Your task to perform on an android device: turn off location Image 0: 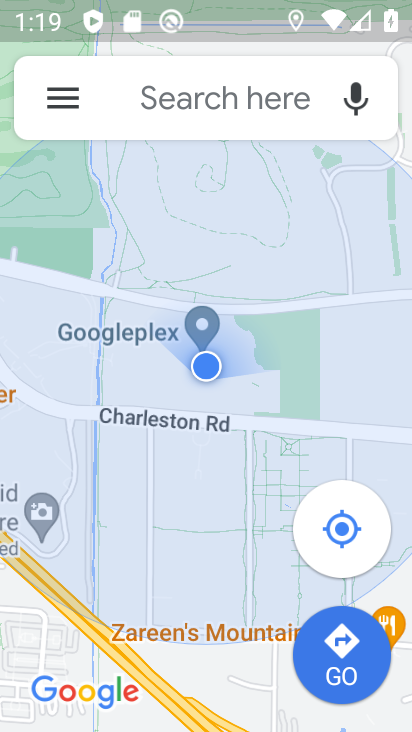
Step 0: press home button
Your task to perform on an android device: turn off location Image 1: 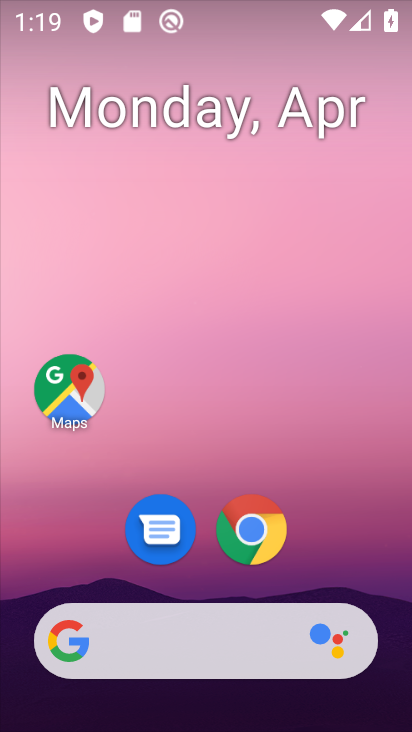
Step 1: drag from (345, 545) to (318, 185)
Your task to perform on an android device: turn off location Image 2: 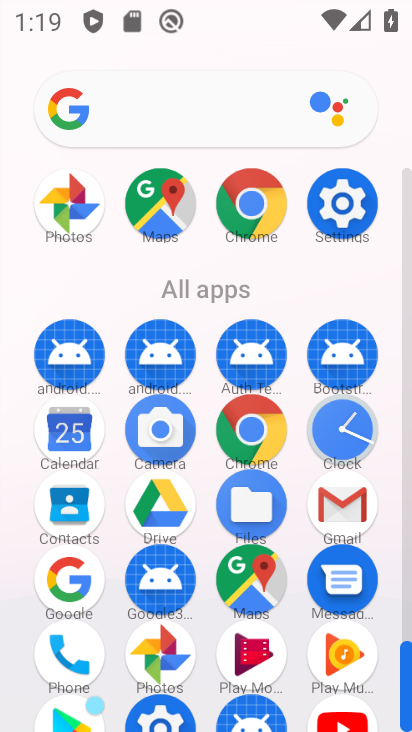
Step 2: click (341, 198)
Your task to perform on an android device: turn off location Image 3: 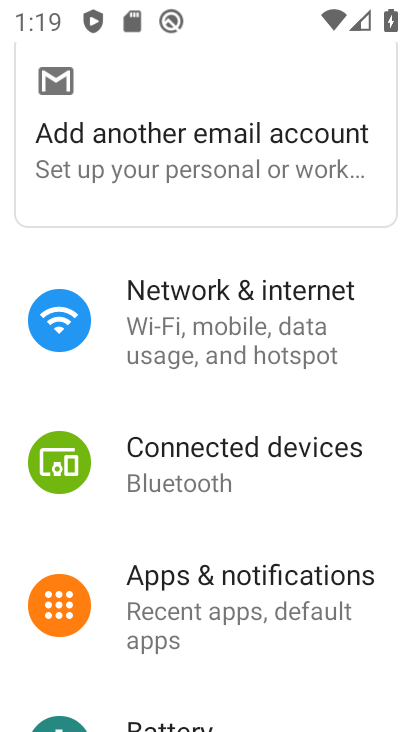
Step 3: drag from (235, 634) to (228, 445)
Your task to perform on an android device: turn off location Image 4: 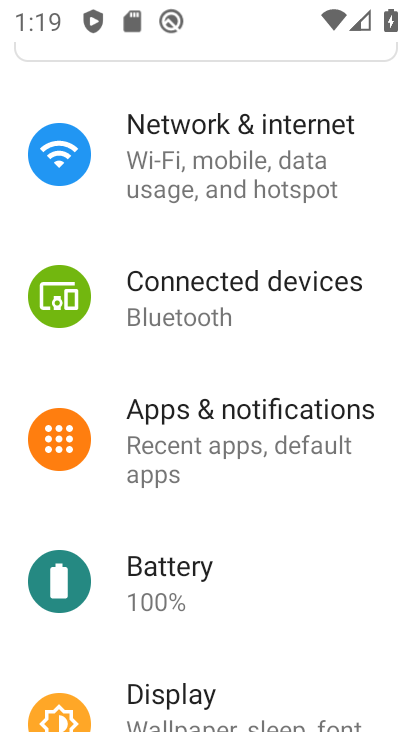
Step 4: drag from (249, 616) to (257, 232)
Your task to perform on an android device: turn off location Image 5: 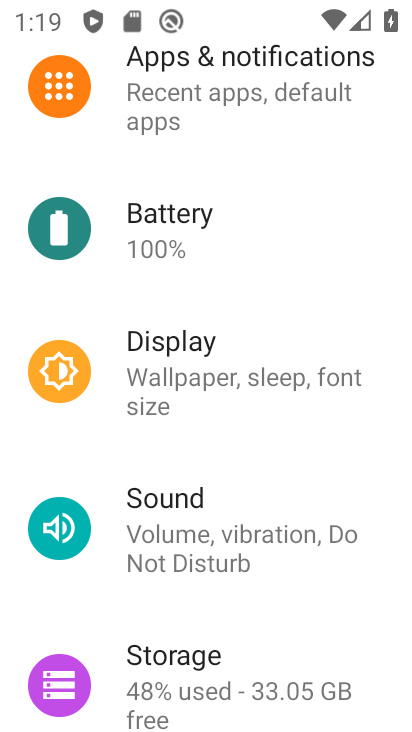
Step 5: drag from (210, 620) to (260, 201)
Your task to perform on an android device: turn off location Image 6: 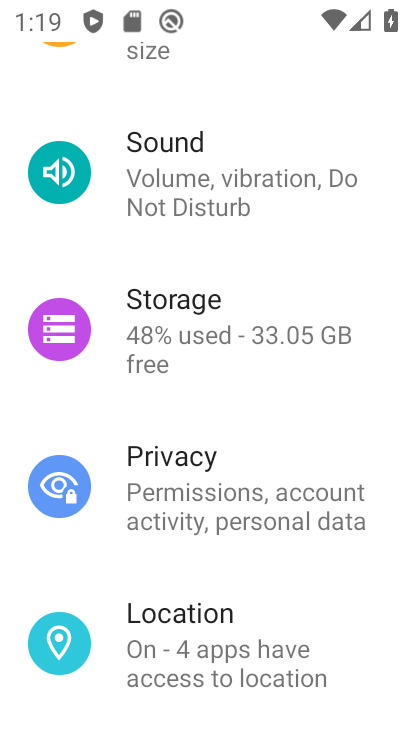
Step 6: click (199, 630)
Your task to perform on an android device: turn off location Image 7: 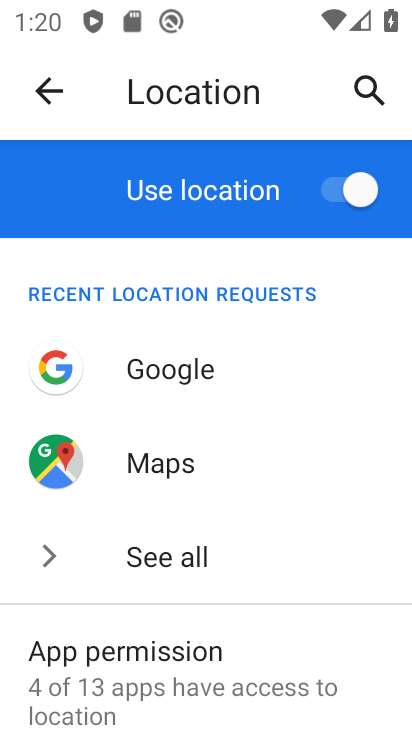
Step 7: drag from (246, 643) to (266, 242)
Your task to perform on an android device: turn off location Image 8: 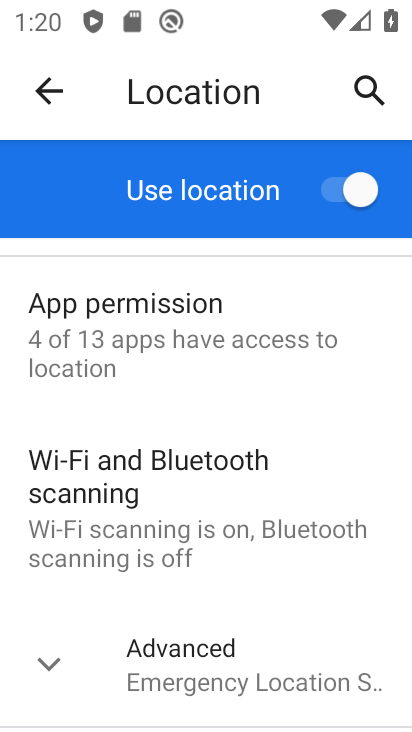
Step 8: click (344, 188)
Your task to perform on an android device: turn off location Image 9: 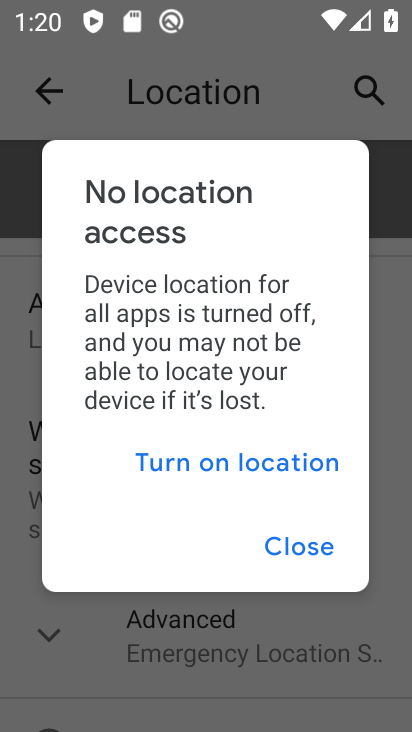
Step 9: task complete